Your task to perform on an android device: manage bookmarks in the chrome app Image 0: 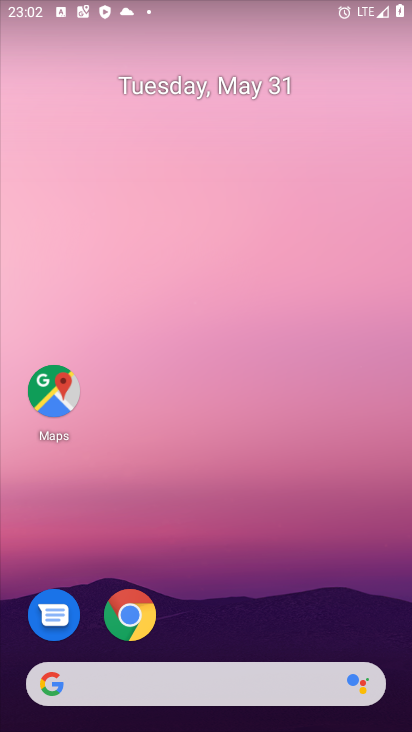
Step 0: click (131, 614)
Your task to perform on an android device: manage bookmarks in the chrome app Image 1: 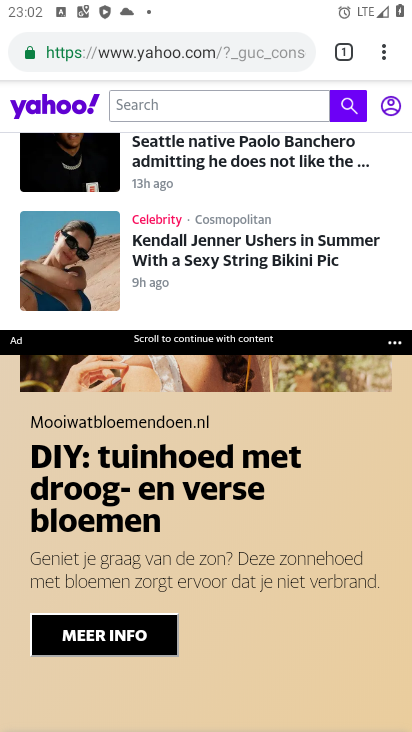
Step 1: click (381, 55)
Your task to perform on an android device: manage bookmarks in the chrome app Image 2: 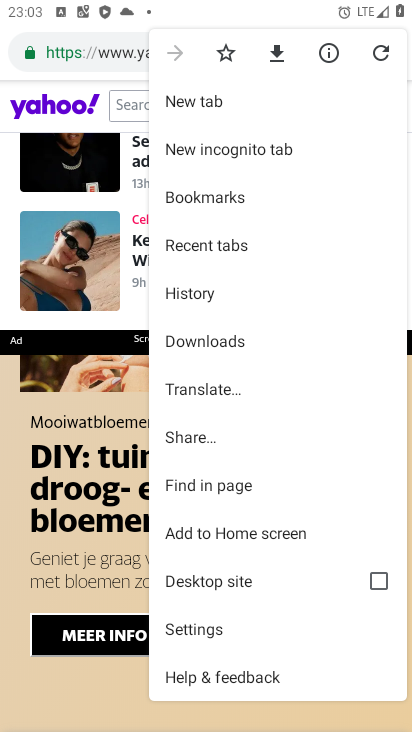
Step 2: click (187, 191)
Your task to perform on an android device: manage bookmarks in the chrome app Image 3: 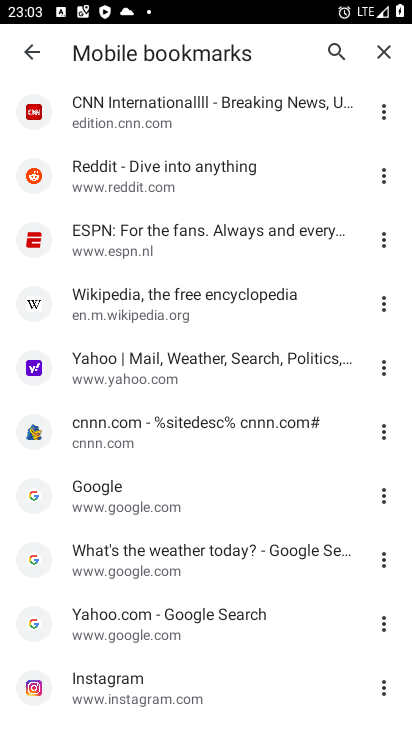
Step 3: click (126, 239)
Your task to perform on an android device: manage bookmarks in the chrome app Image 4: 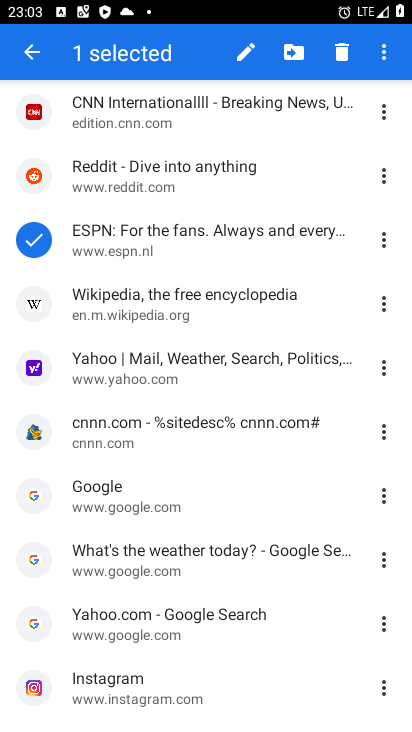
Step 4: click (291, 52)
Your task to perform on an android device: manage bookmarks in the chrome app Image 5: 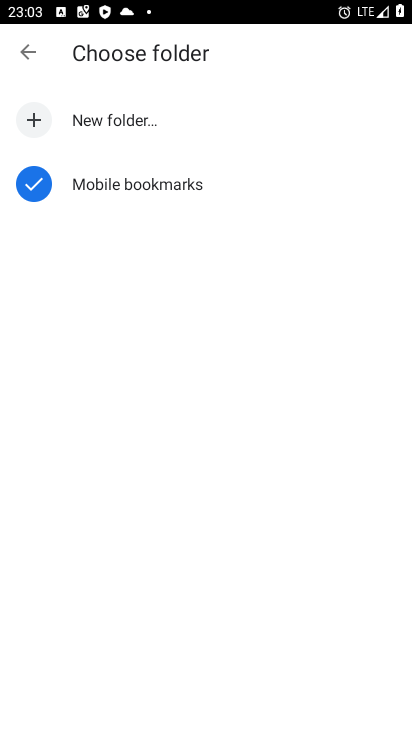
Step 5: click (35, 115)
Your task to perform on an android device: manage bookmarks in the chrome app Image 6: 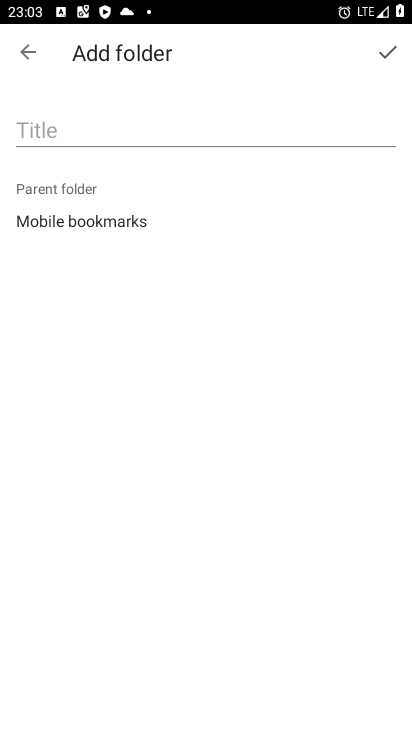
Step 6: type "yuytghgff"
Your task to perform on an android device: manage bookmarks in the chrome app Image 7: 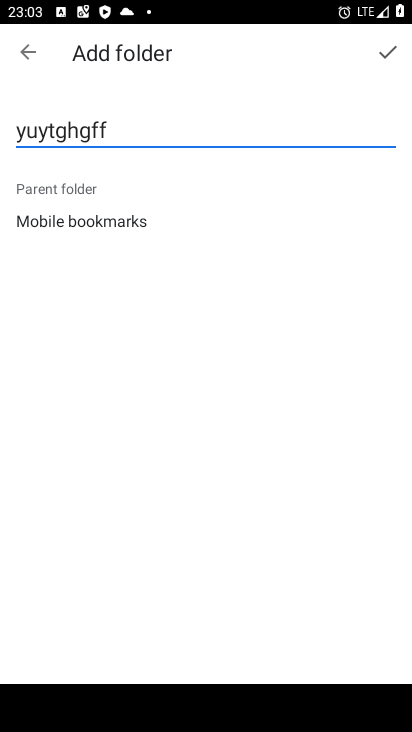
Step 7: click (382, 48)
Your task to perform on an android device: manage bookmarks in the chrome app Image 8: 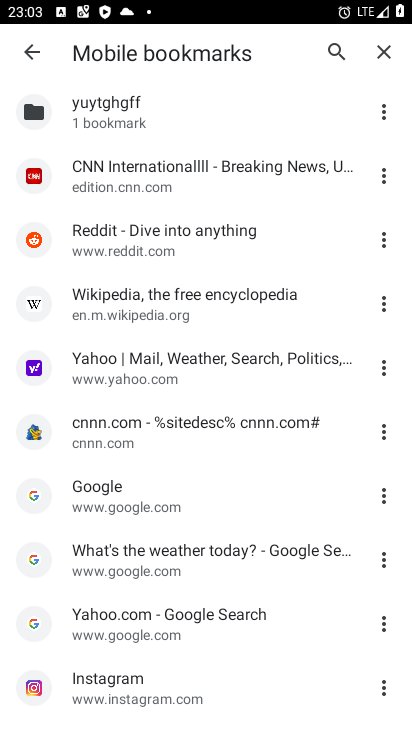
Step 8: task complete